Your task to perform on an android device: View the shopping cart on costco.com. Image 0: 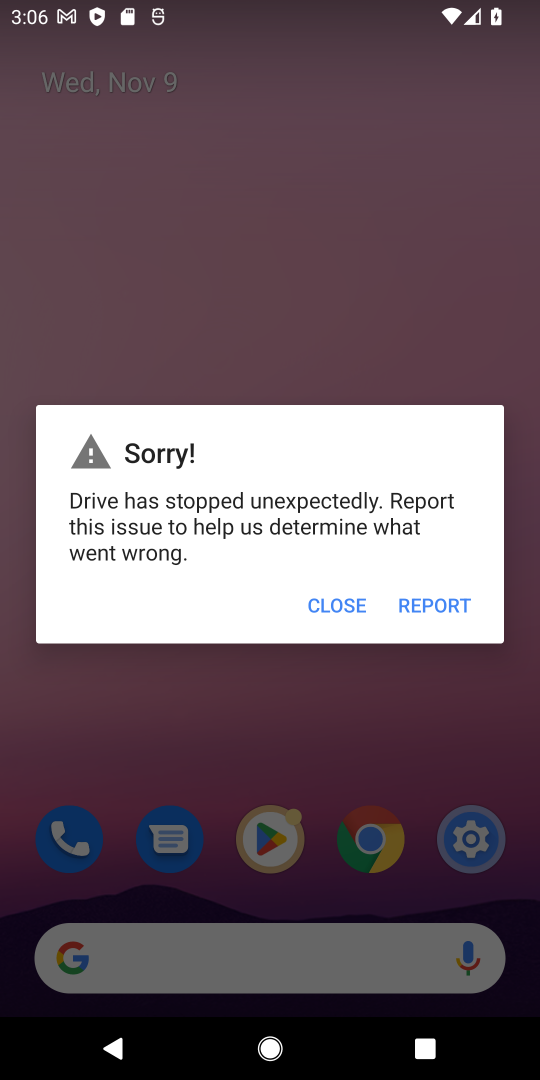
Step 0: click (334, 624)
Your task to perform on an android device: View the shopping cart on costco.com. Image 1: 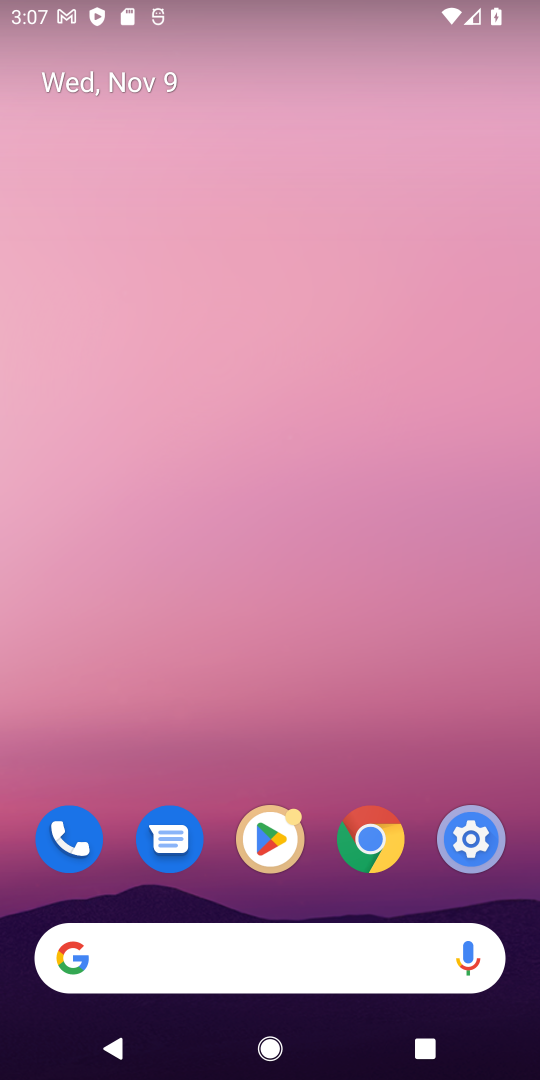
Step 1: click (329, 973)
Your task to perform on an android device: View the shopping cart on costco.com. Image 2: 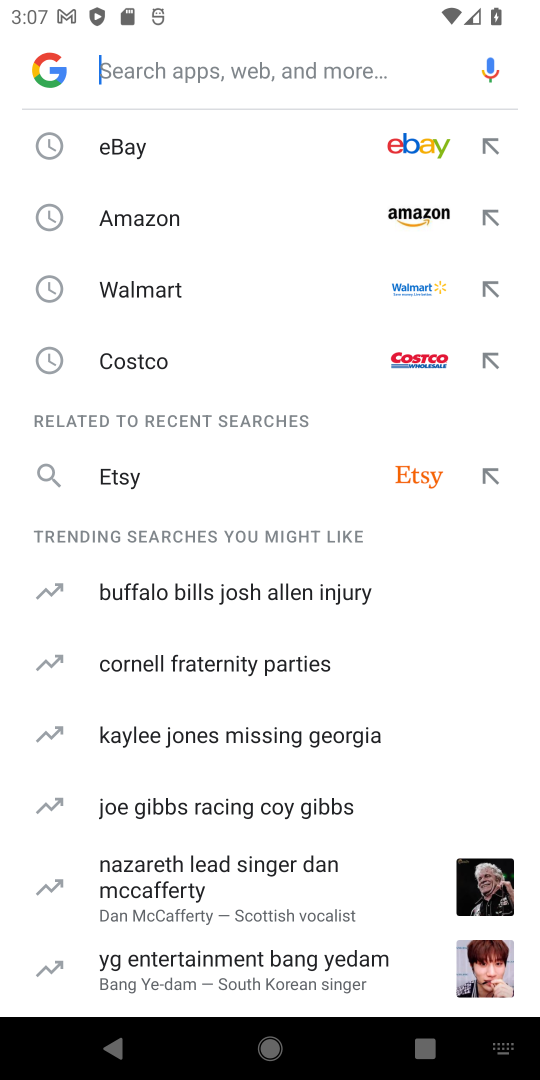
Step 2: type "costco"
Your task to perform on an android device: View the shopping cart on costco.com. Image 3: 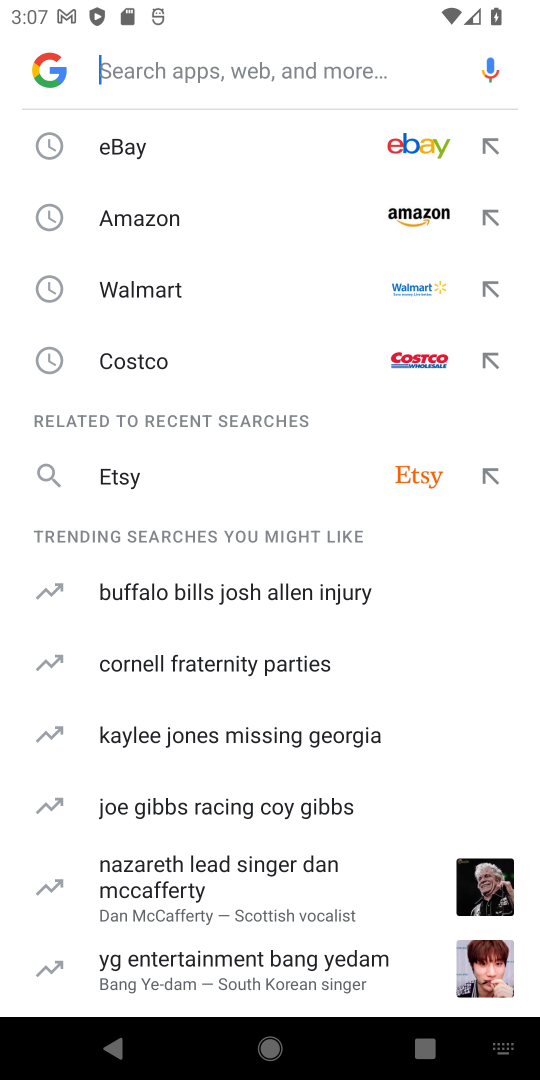
Step 3: click (242, 357)
Your task to perform on an android device: View the shopping cart on costco.com. Image 4: 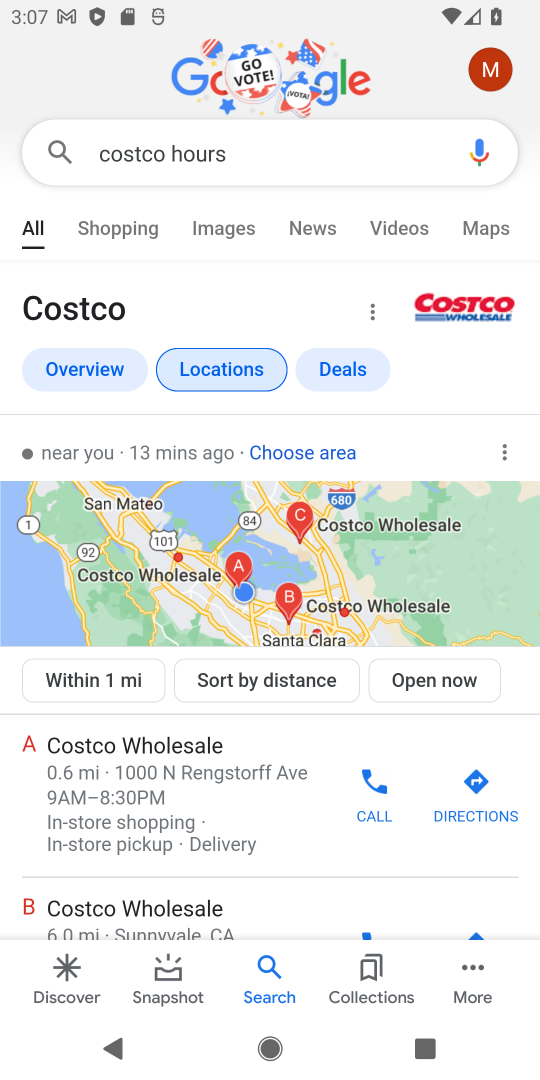
Step 4: click (67, 305)
Your task to perform on an android device: View the shopping cart on costco.com. Image 5: 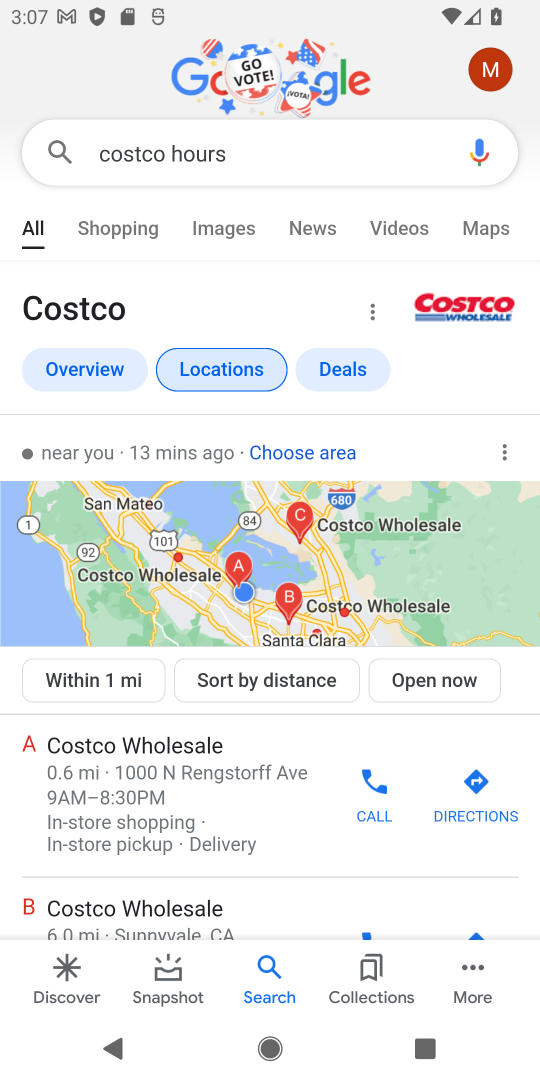
Step 5: task complete